Your task to perform on an android device: Open calendar and show me the first week of next month Image 0: 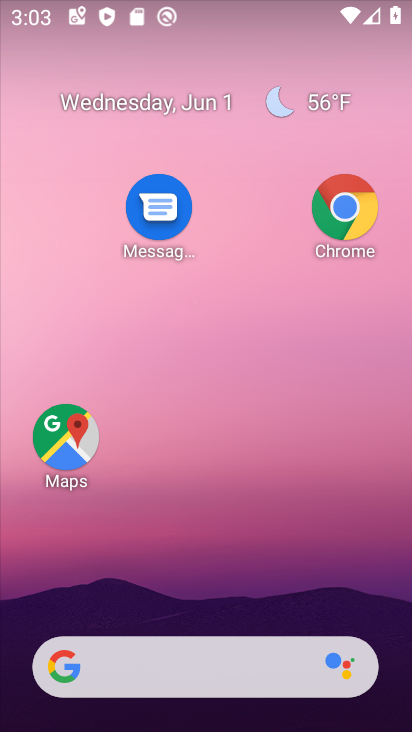
Step 0: drag from (220, 475) to (220, 135)
Your task to perform on an android device: Open calendar and show me the first week of next month Image 1: 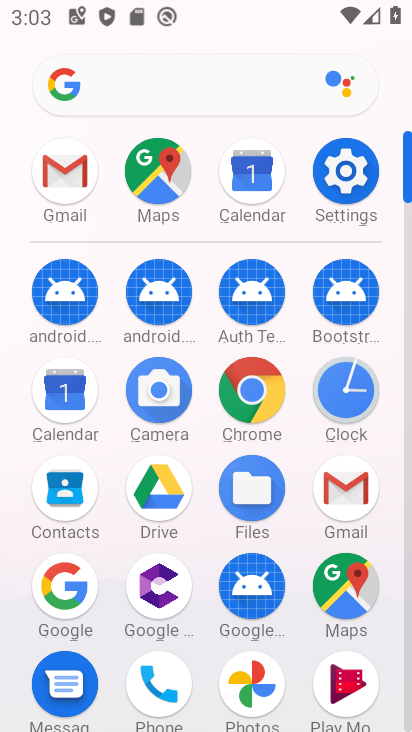
Step 1: click (70, 410)
Your task to perform on an android device: Open calendar and show me the first week of next month Image 2: 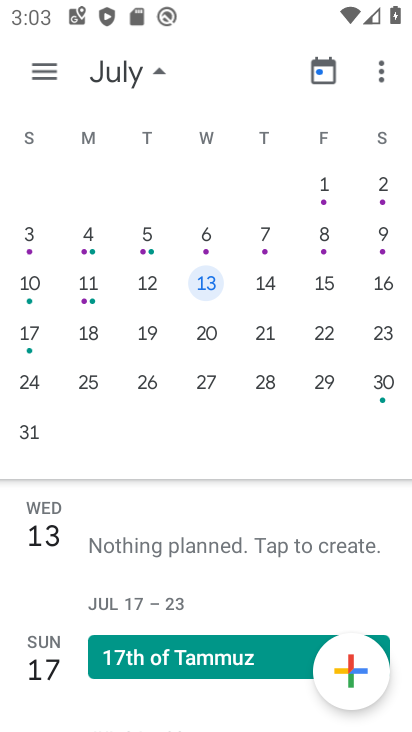
Step 2: click (326, 191)
Your task to perform on an android device: Open calendar and show me the first week of next month Image 3: 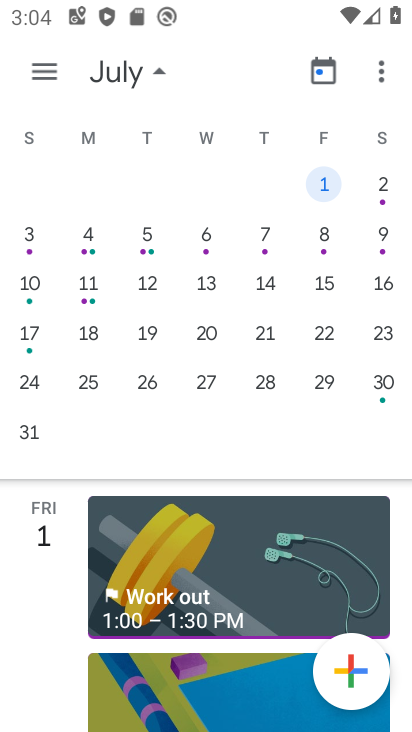
Step 3: task complete